Your task to perform on an android device: open sync settings in chrome Image 0: 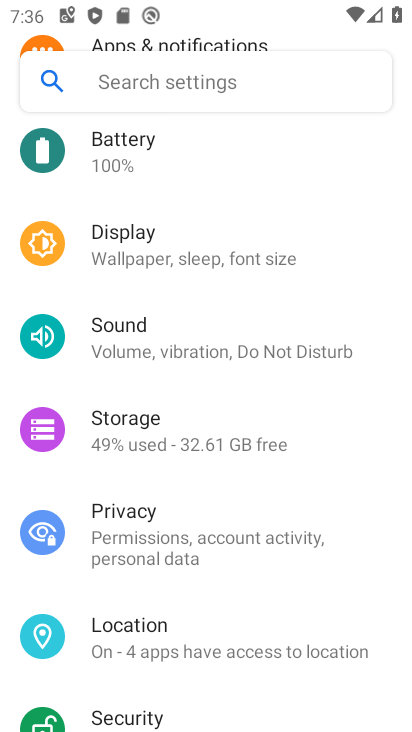
Step 0: press home button
Your task to perform on an android device: open sync settings in chrome Image 1: 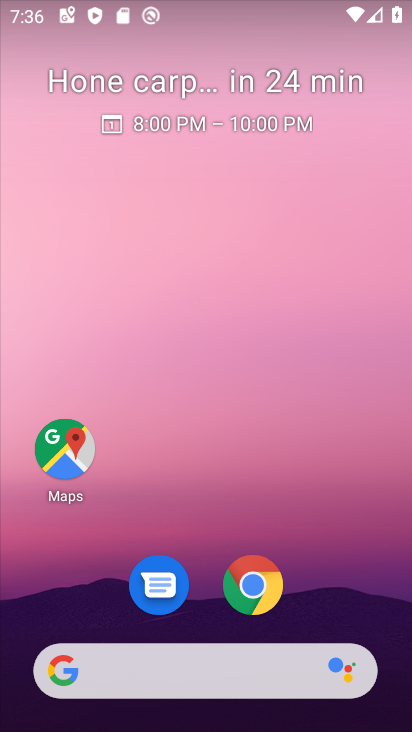
Step 1: click (264, 582)
Your task to perform on an android device: open sync settings in chrome Image 2: 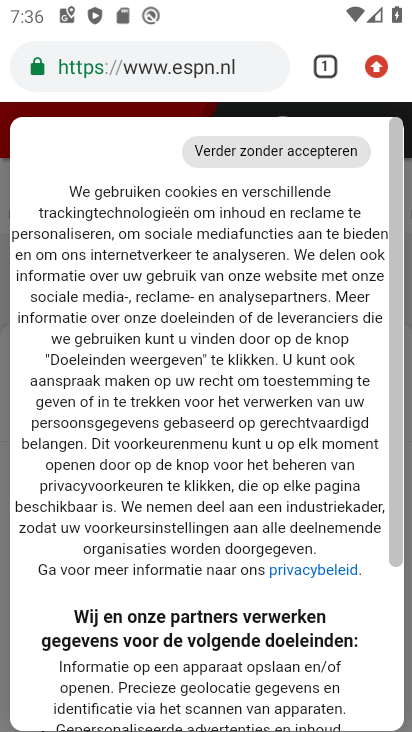
Step 2: click (375, 63)
Your task to perform on an android device: open sync settings in chrome Image 3: 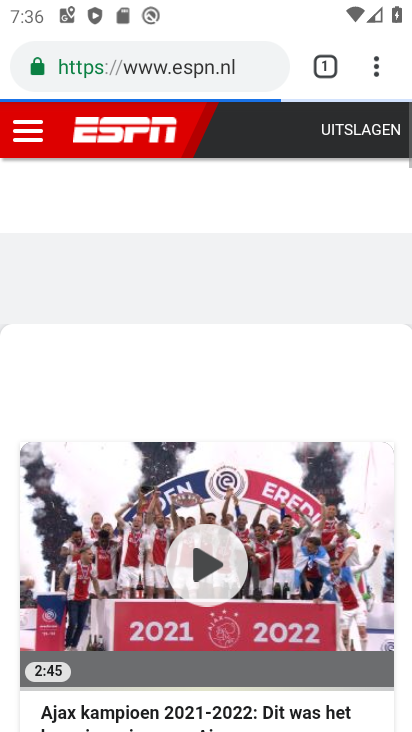
Step 3: drag from (375, 63) to (217, 597)
Your task to perform on an android device: open sync settings in chrome Image 4: 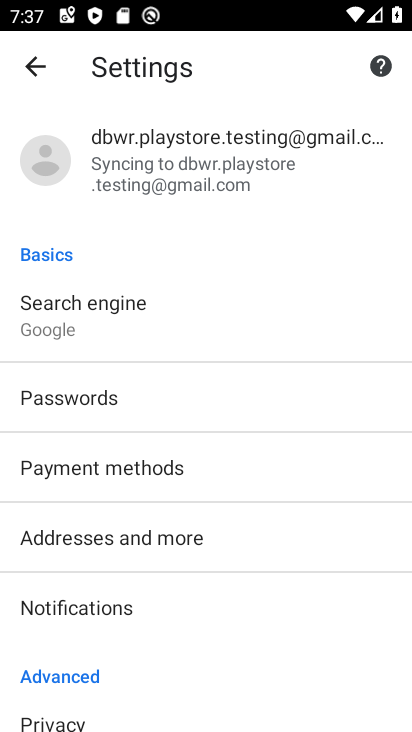
Step 4: click (269, 155)
Your task to perform on an android device: open sync settings in chrome Image 5: 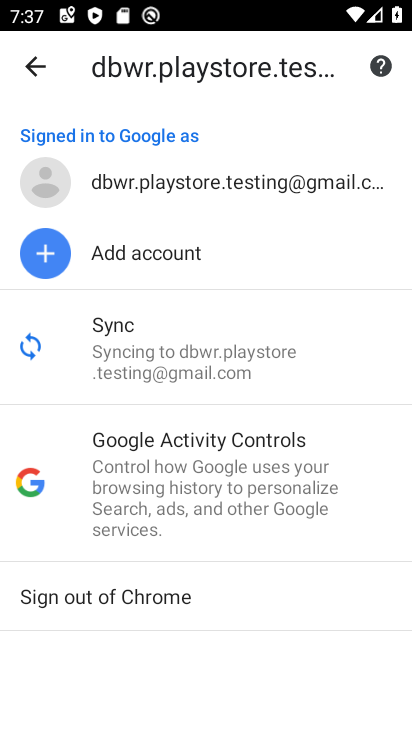
Step 5: click (164, 348)
Your task to perform on an android device: open sync settings in chrome Image 6: 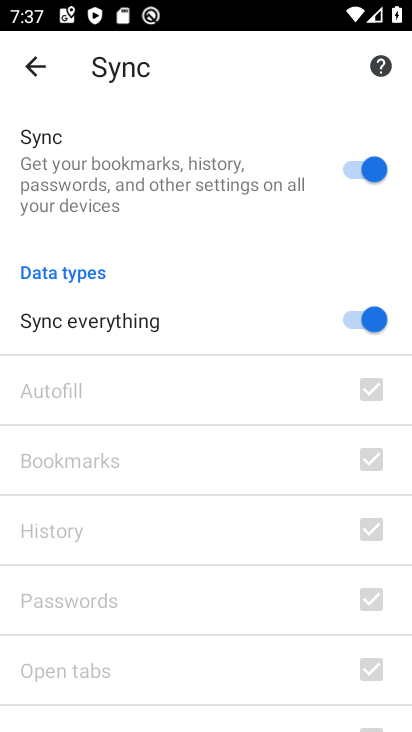
Step 6: task complete